Your task to perform on an android device: What is the news today? Image 0: 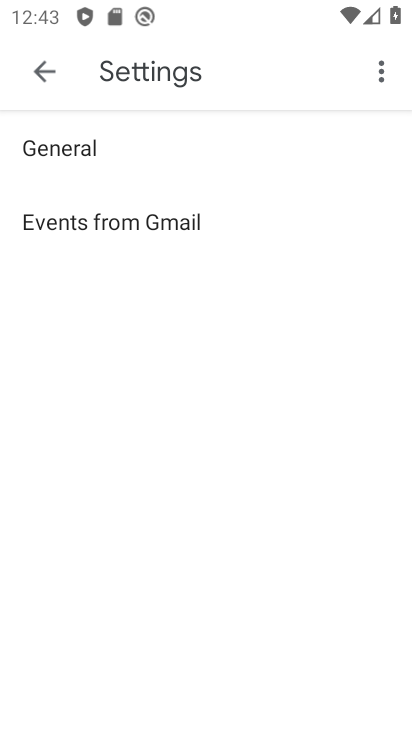
Step 0: drag from (290, 509) to (75, 217)
Your task to perform on an android device: What is the news today? Image 1: 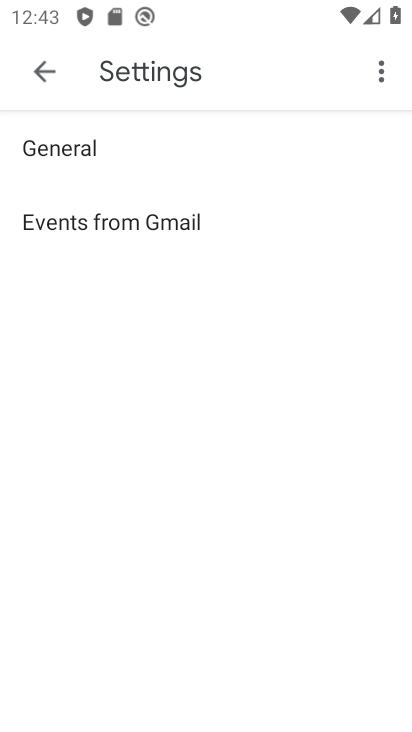
Step 1: press home button
Your task to perform on an android device: What is the news today? Image 2: 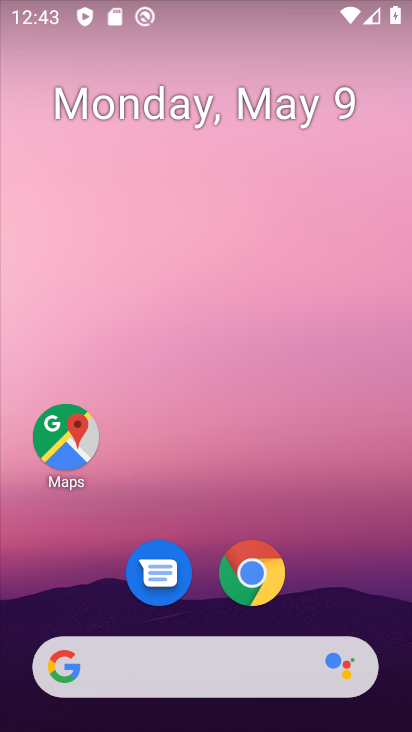
Step 2: click (249, 572)
Your task to perform on an android device: What is the news today? Image 3: 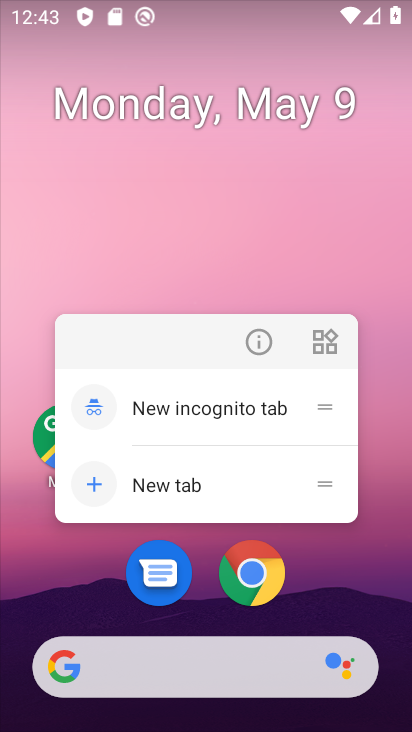
Step 3: click (266, 576)
Your task to perform on an android device: What is the news today? Image 4: 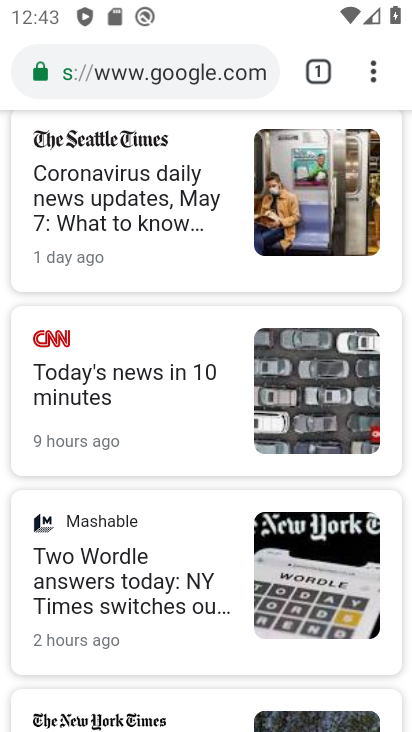
Step 4: click (320, 72)
Your task to perform on an android device: What is the news today? Image 5: 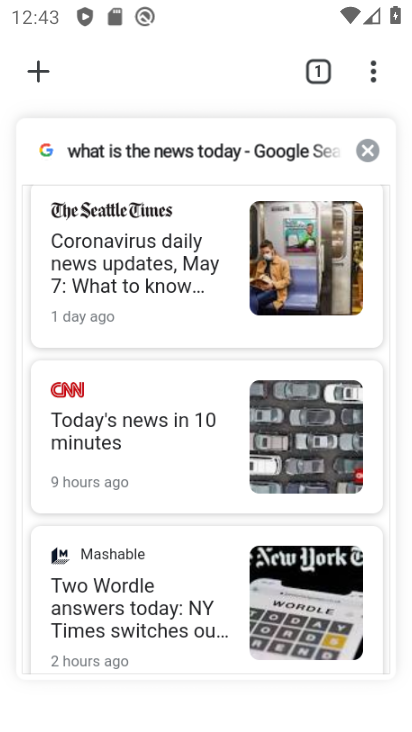
Step 5: click (34, 70)
Your task to perform on an android device: What is the news today? Image 6: 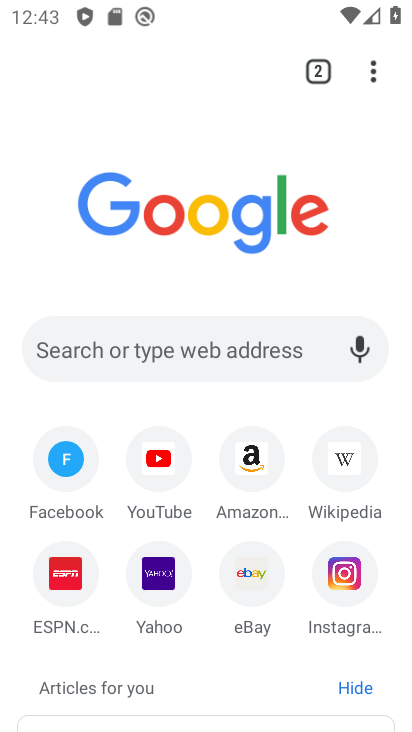
Step 6: click (322, 76)
Your task to perform on an android device: What is the news today? Image 7: 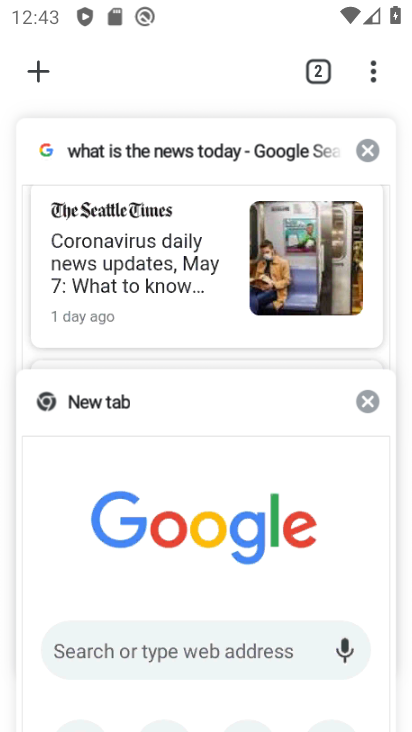
Step 7: click (202, 316)
Your task to perform on an android device: What is the news today? Image 8: 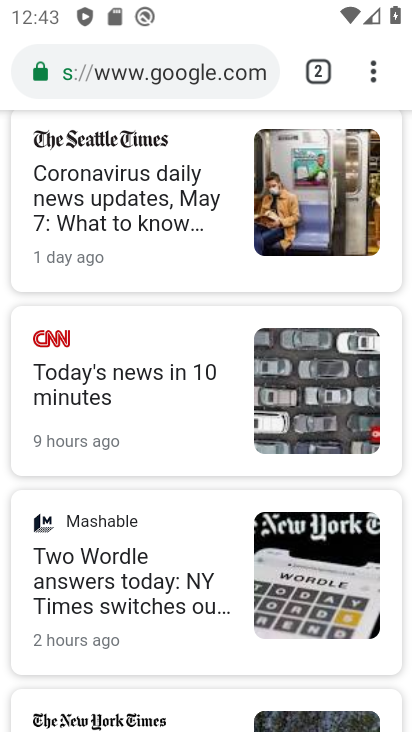
Step 8: task complete